Your task to perform on an android device: Open calendar and show me the first week of next month Image 0: 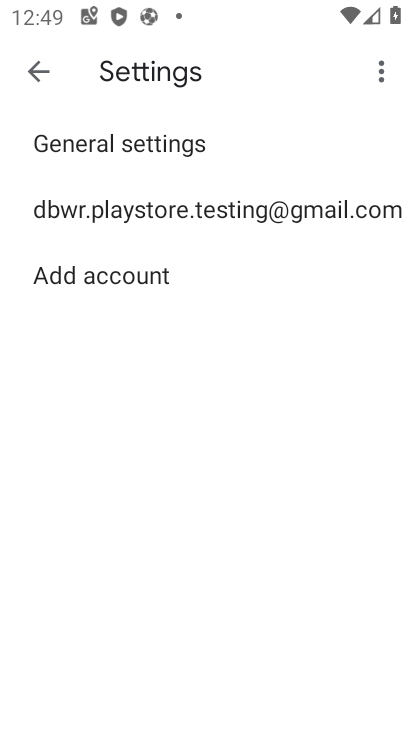
Step 0: press home button
Your task to perform on an android device: Open calendar and show me the first week of next month Image 1: 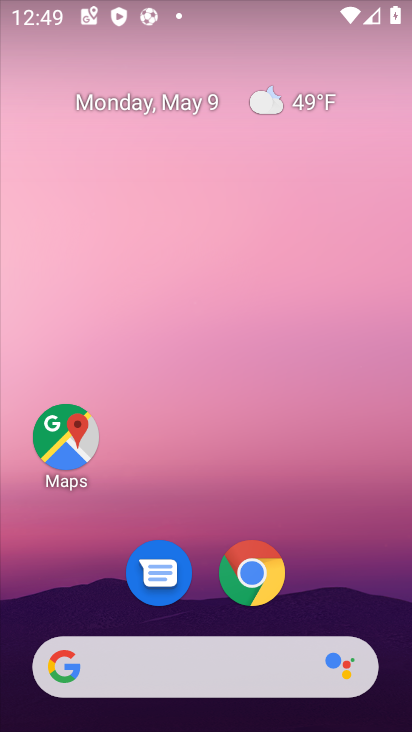
Step 1: drag from (186, 712) to (184, 20)
Your task to perform on an android device: Open calendar and show me the first week of next month Image 2: 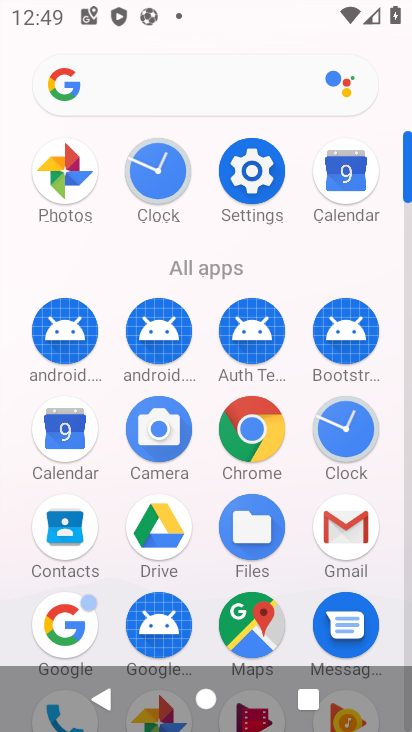
Step 2: click (65, 442)
Your task to perform on an android device: Open calendar and show me the first week of next month Image 3: 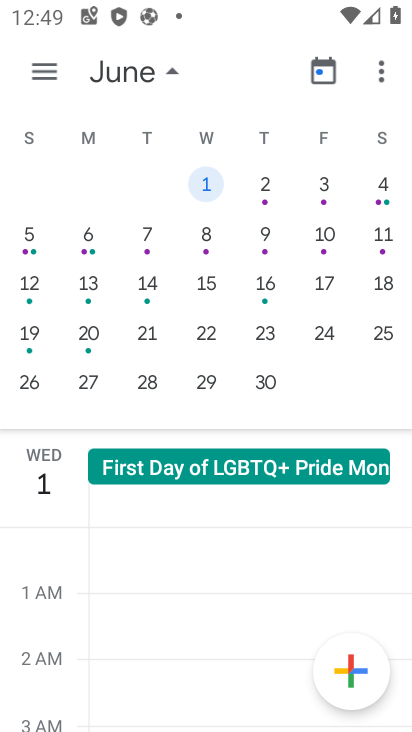
Step 3: click (213, 184)
Your task to perform on an android device: Open calendar and show me the first week of next month Image 4: 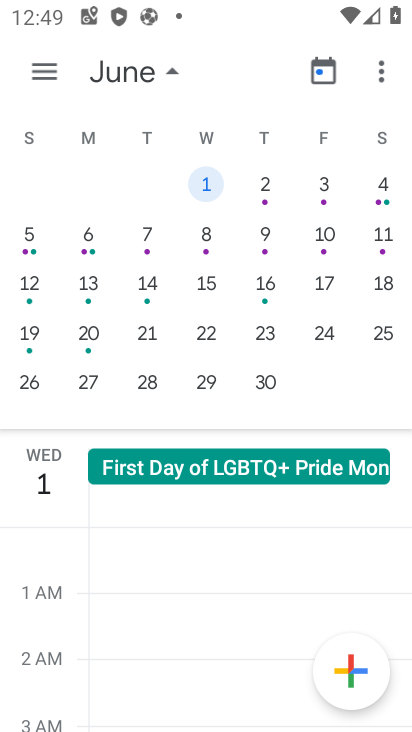
Step 4: task complete